Your task to perform on an android device: allow cookies in the chrome app Image 0: 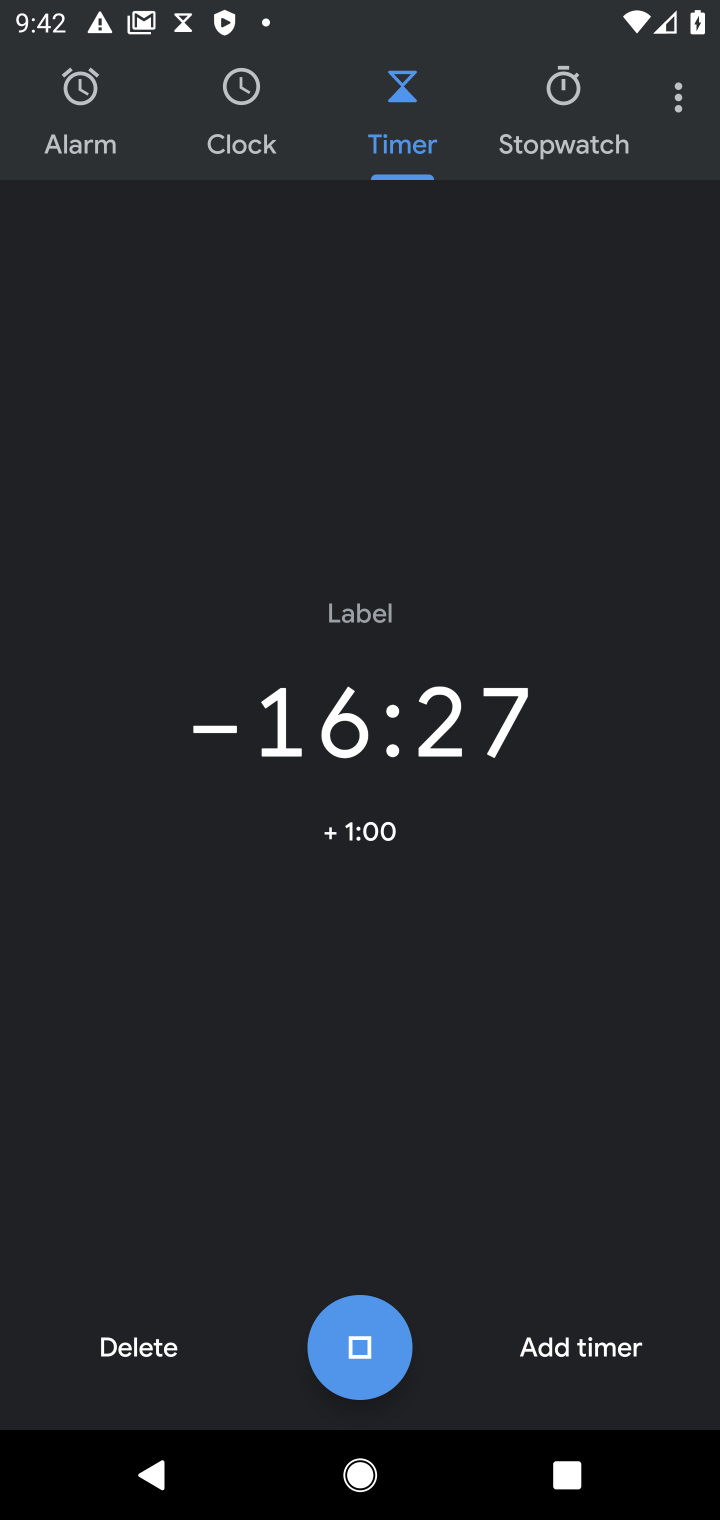
Step 0: press home button
Your task to perform on an android device: allow cookies in the chrome app Image 1: 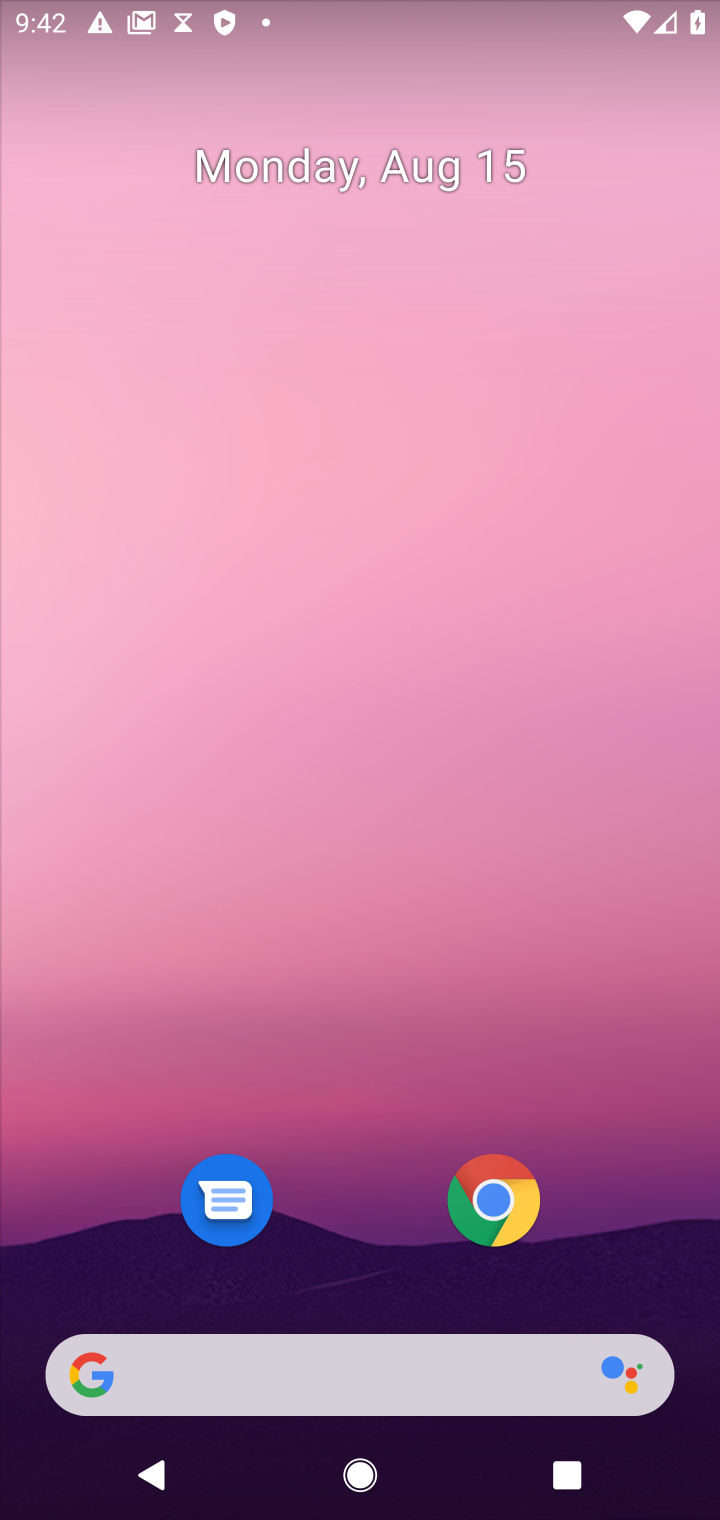
Step 1: click (479, 1225)
Your task to perform on an android device: allow cookies in the chrome app Image 2: 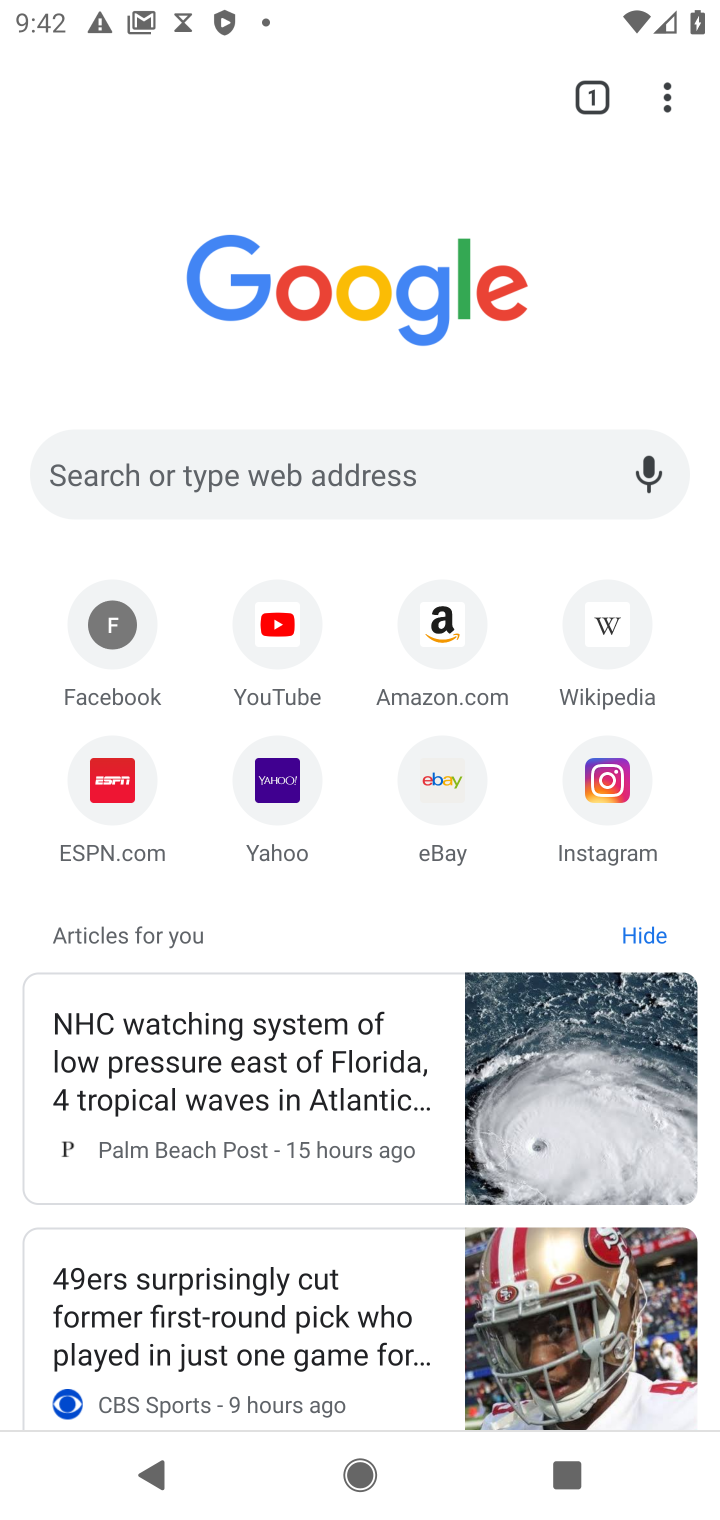
Step 2: click (674, 105)
Your task to perform on an android device: allow cookies in the chrome app Image 3: 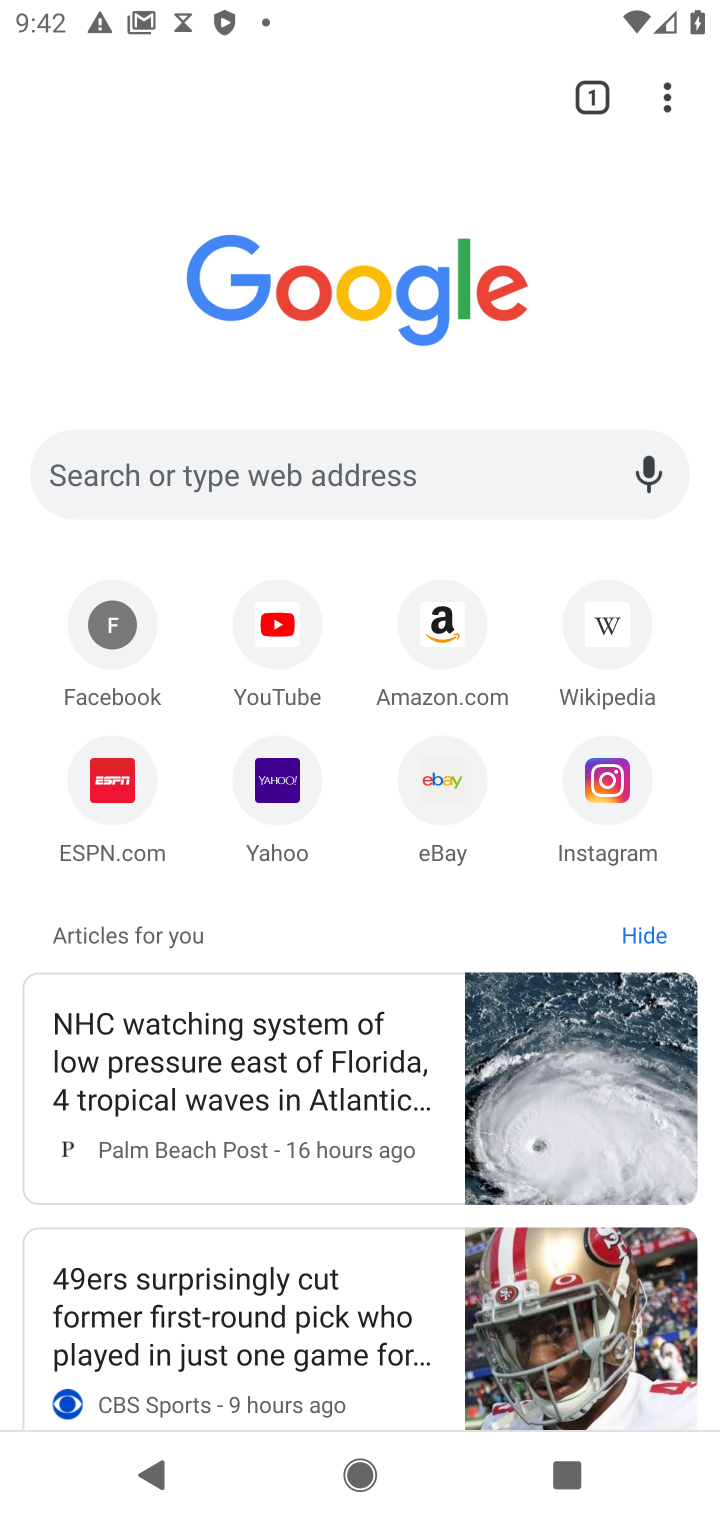
Step 3: click (668, 96)
Your task to perform on an android device: allow cookies in the chrome app Image 4: 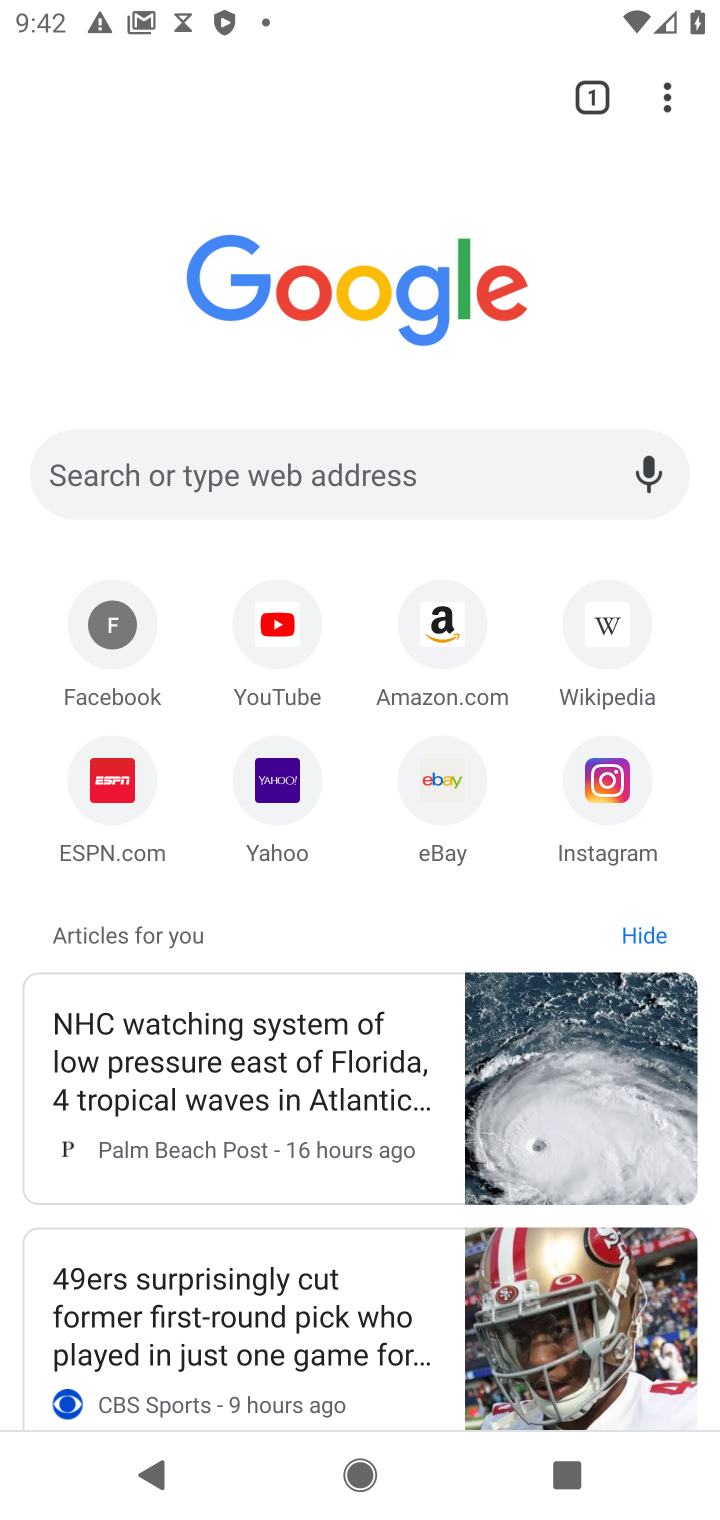
Step 4: click (668, 96)
Your task to perform on an android device: allow cookies in the chrome app Image 5: 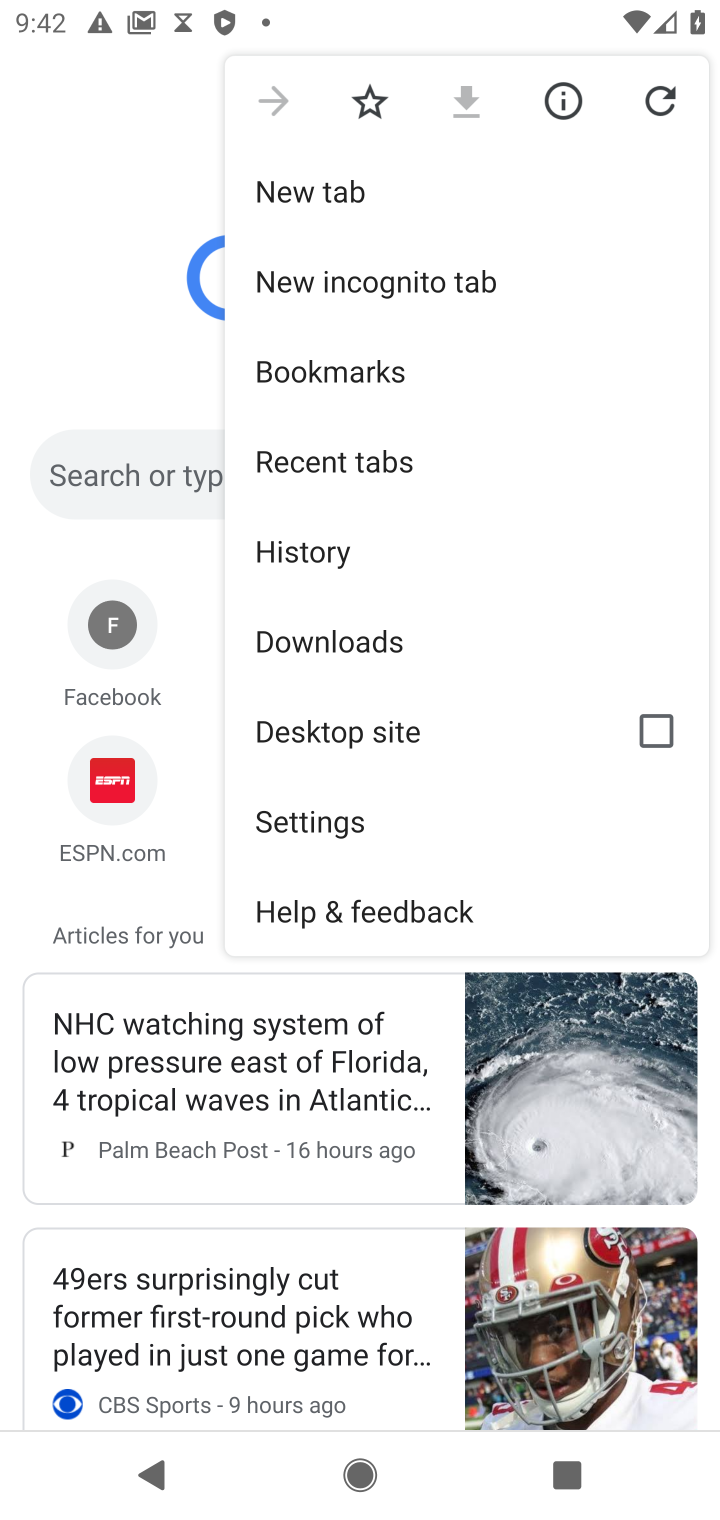
Step 5: click (350, 822)
Your task to perform on an android device: allow cookies in the chrome app Image 6: 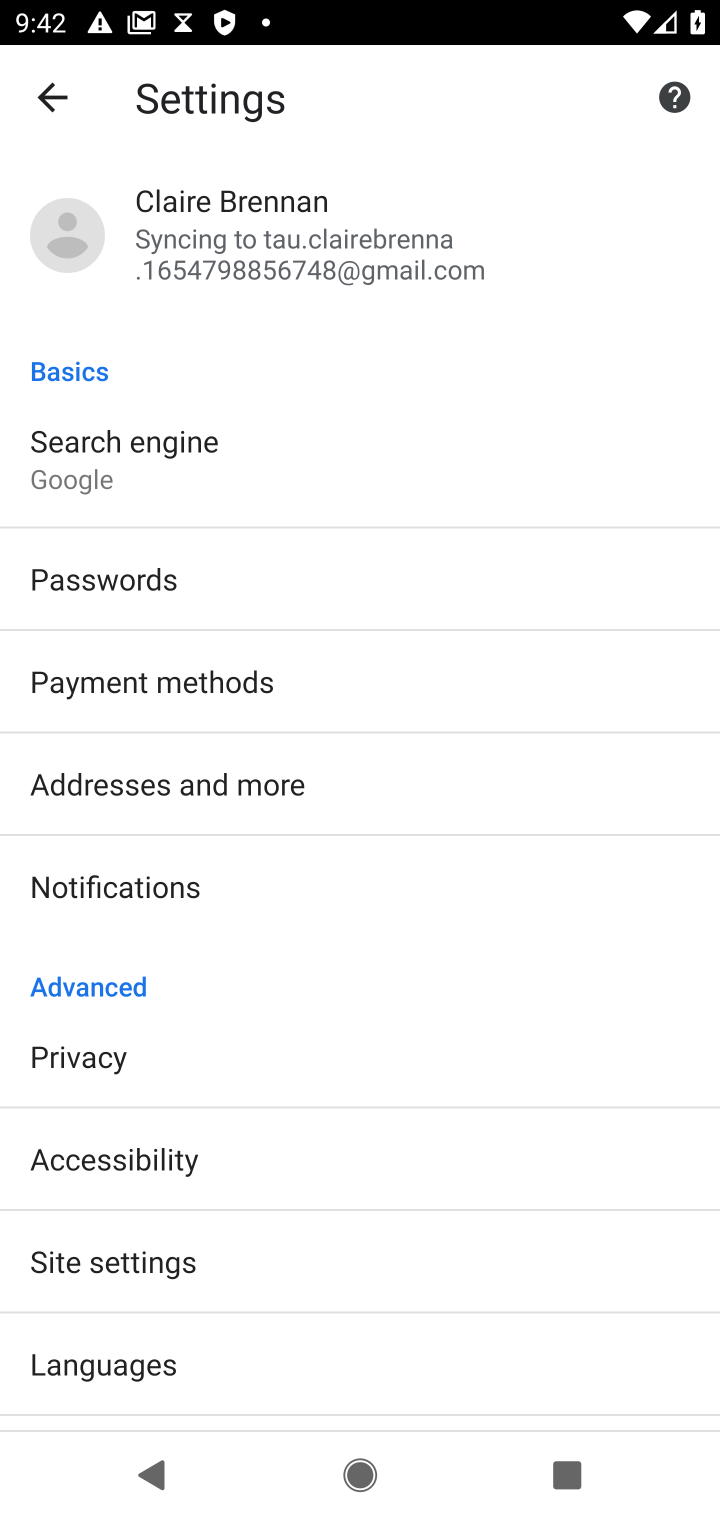
Step 6: click (182, 1249)
Your task to perform on an android device: allow cookies in the chrome app Image 7: 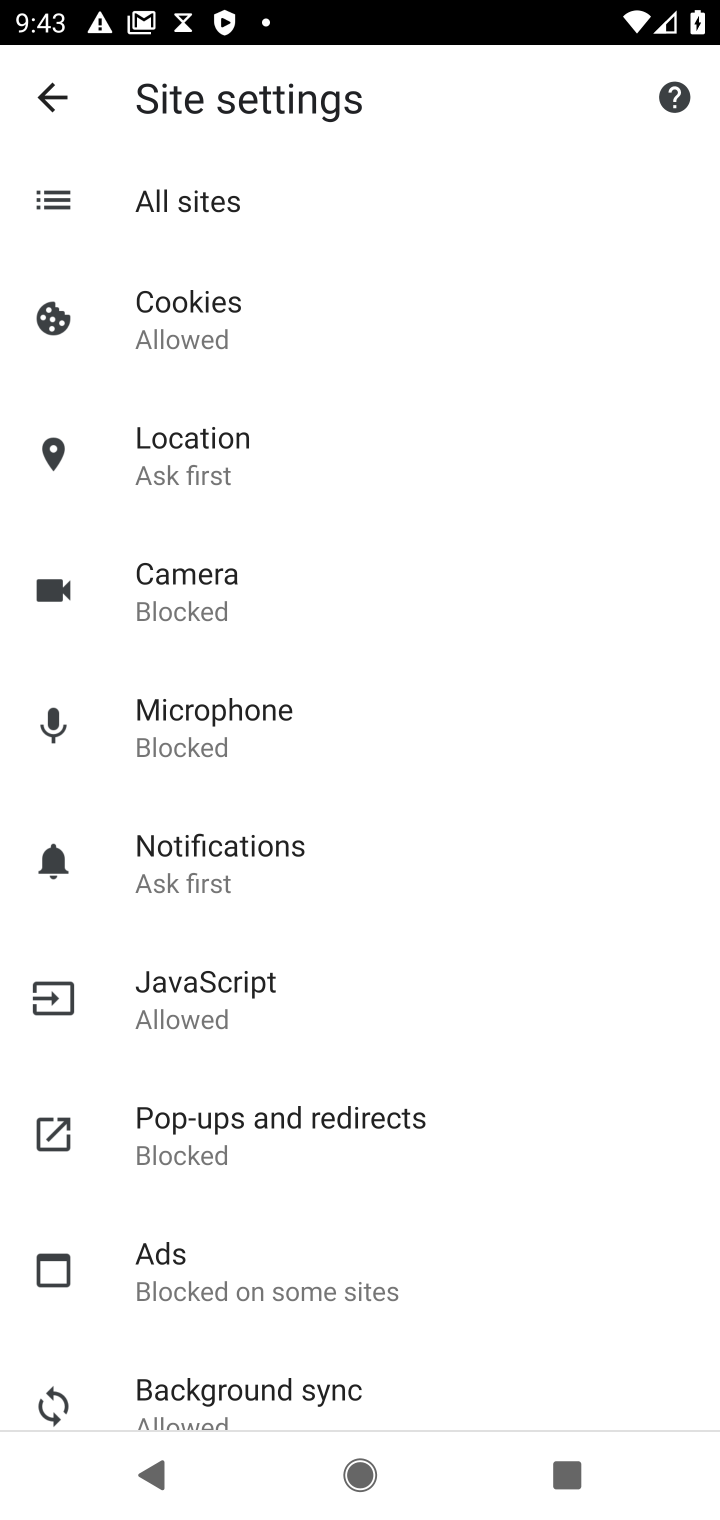
Step 7: click (258, 332)
Your task to perform on an android device: allow cookies in the chrome app Image 8: 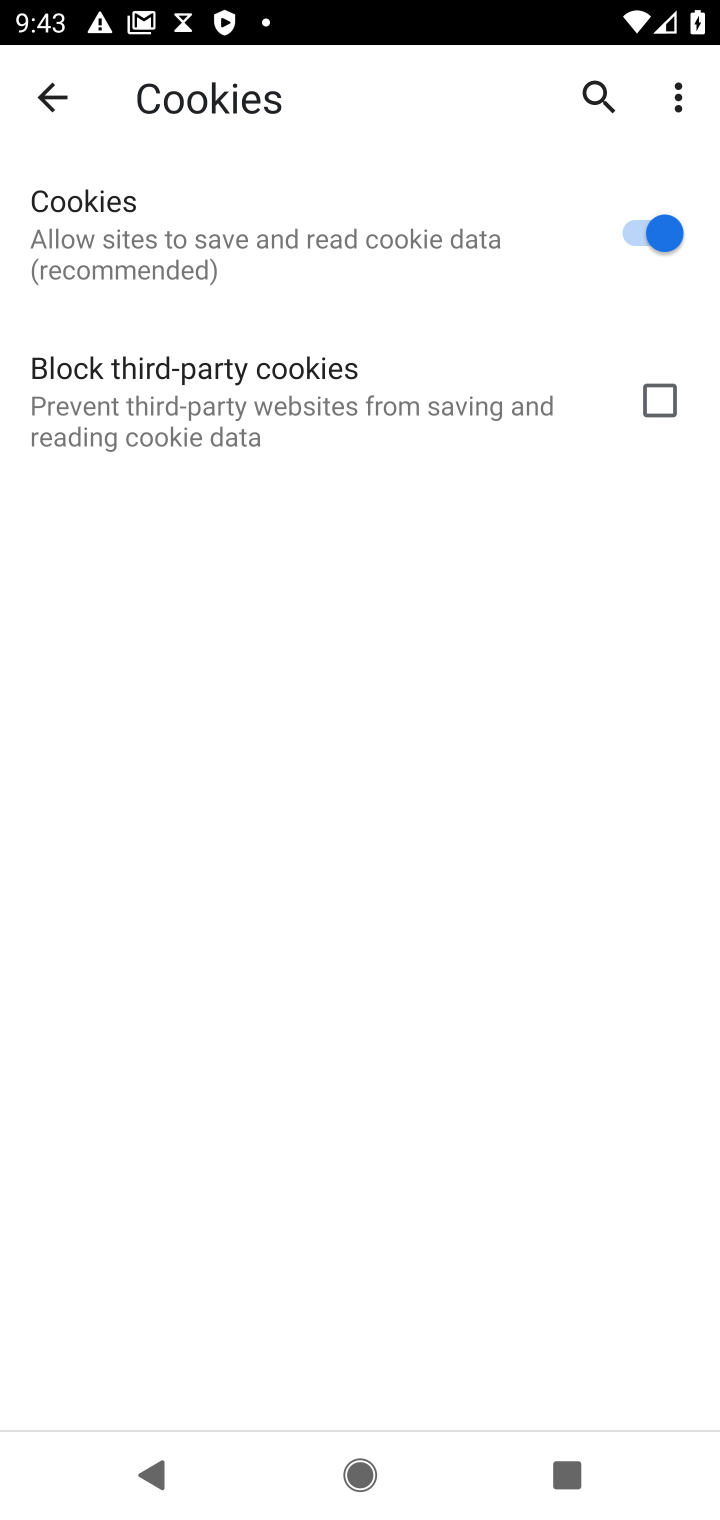
Step 8: task complete